Your task to perform on an android device: Search for pizza restaurants on Maps Image 0: 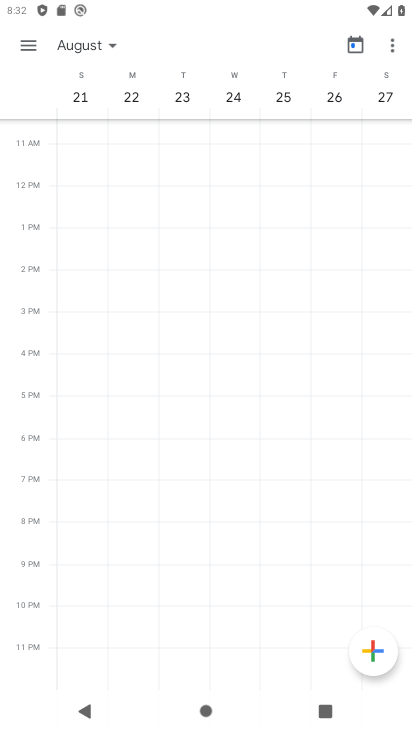
Step 0: press home button
Your task to perform on an android device: Search for pizza restaurants on Maps Image 1: 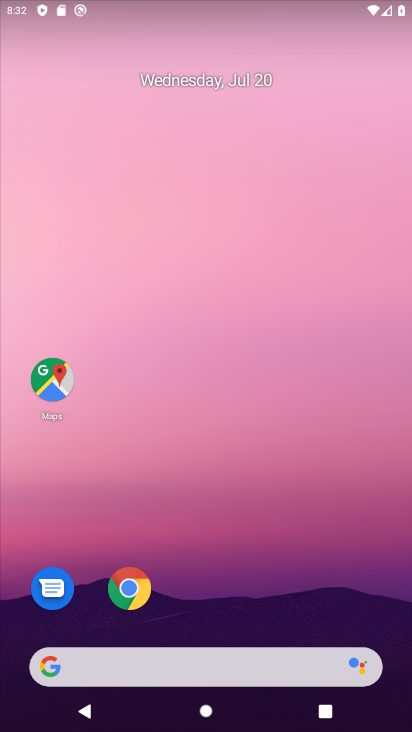
Step 1: click (40, 380)
Your task to perform on an android device: Search for pizza restaurants on Maps Image 2: 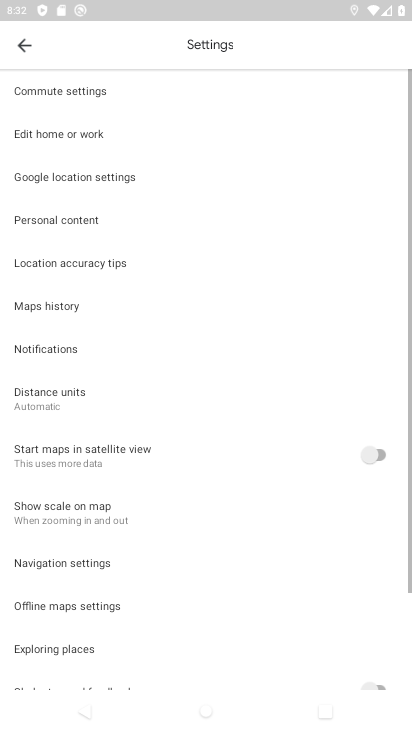
Step 2: click (11, 46)
Your task to perform on an android device: Search for pizza restaurants on Maps Image 3: 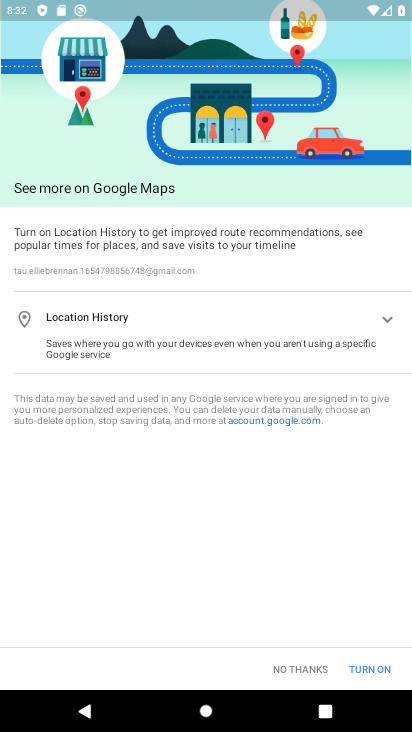
Step 3: click (370, 662)
Your task to perform on an android device: Search for pizza restaurants on Maps Image 4: 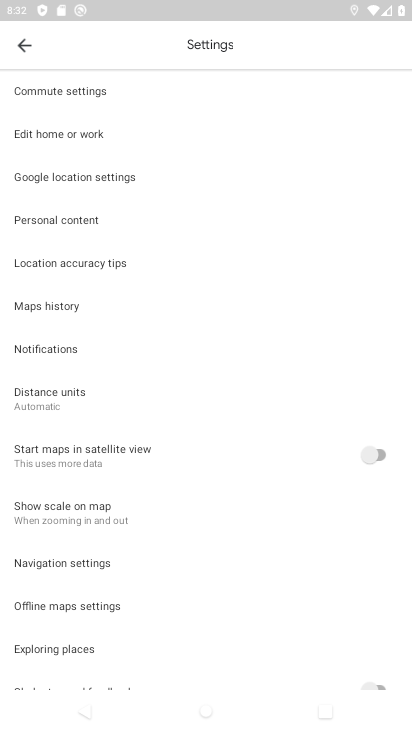
Step 4: click (20, 60)
Your task to perform on an android device: Search for pizza restaurants on Maps Image 5: 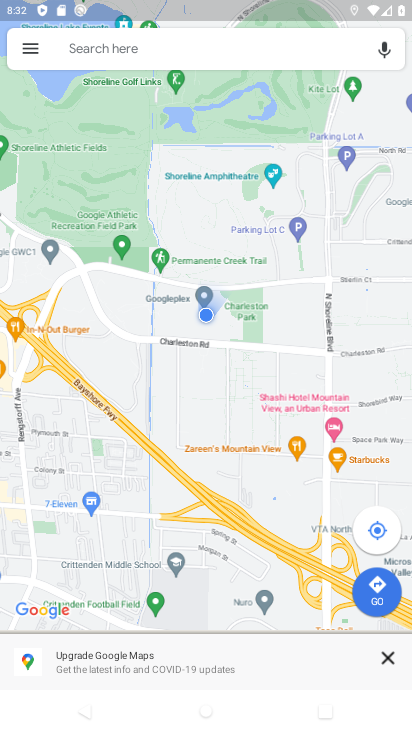
Step 5: click (204, 56)
Your task to perform on an android device: Search for pizza restaurants on Maps Image 6: 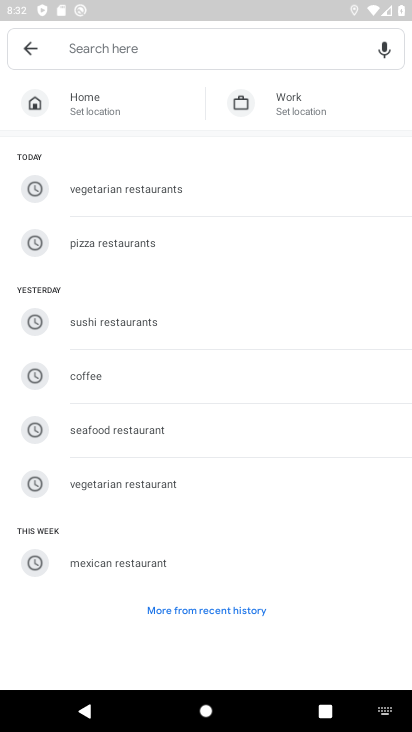
Step 6: click (62, 233)
Your task to perform on an android device: Search for pizza restaurants on Maps Image 7: 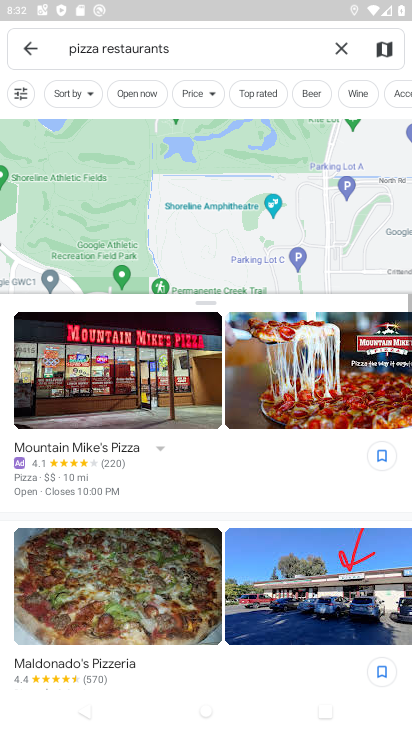
Step 7: task complete